Your task to perform on an android device: Open calendar and show me the first week of next month Image 0: 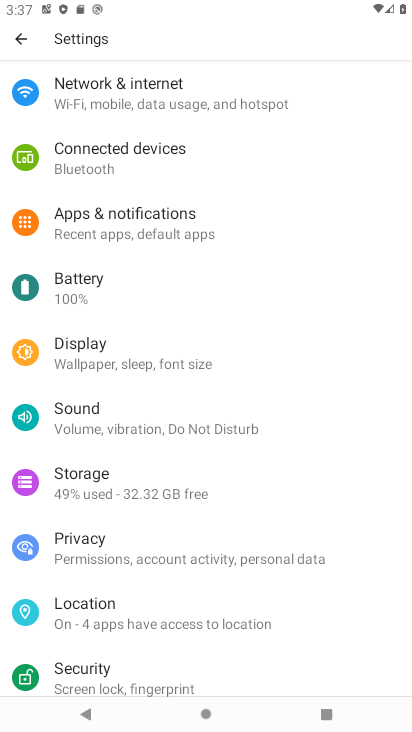
Step 0: press home button
Your task to perform on an android device: Open calendar and show me the first week of next month Image 1: 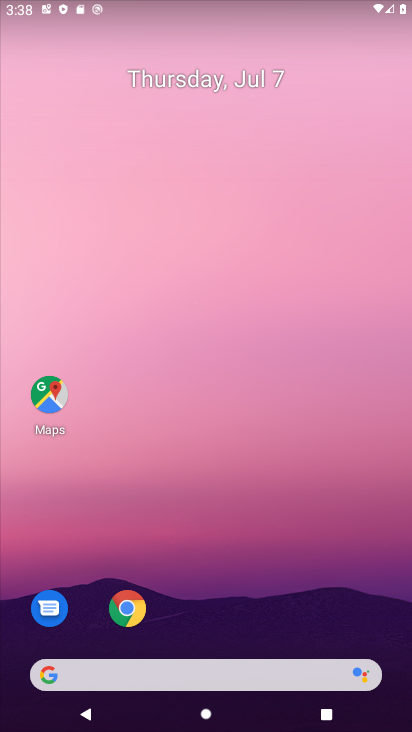
Step 1: drag from (391, 632) to (345, 172)
Your task to perform on an android device: Open calendar and show me the first week of next month Image 2: 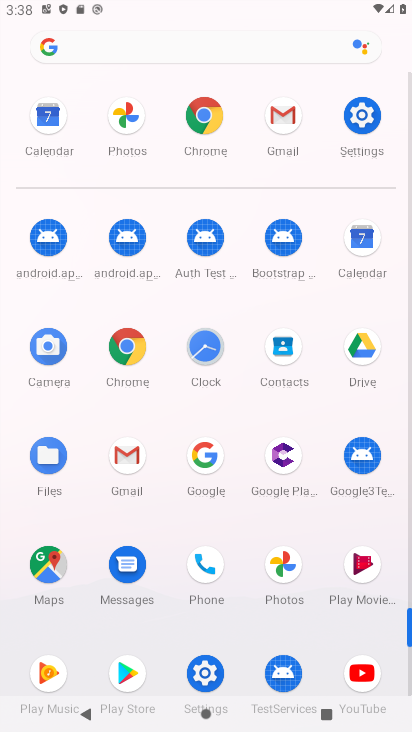
Step 2: click (363, 235)
Your task to perform on an android device: Open calendar and show me the first week of next month Image 3: 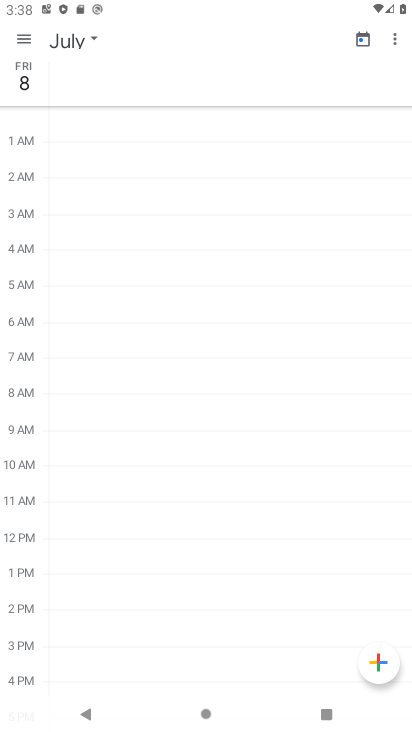
Step 3: click (24, 34)
Your task to perform on an android device: Open calendar and show me the first week of next month Image 4: 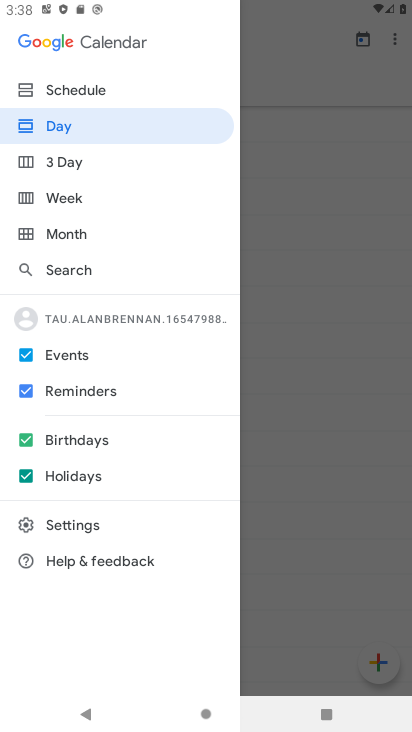
Step 4: click (65, 197)
Your task to perform on an android device: Open calendar and show me the first week of next month Image 5: 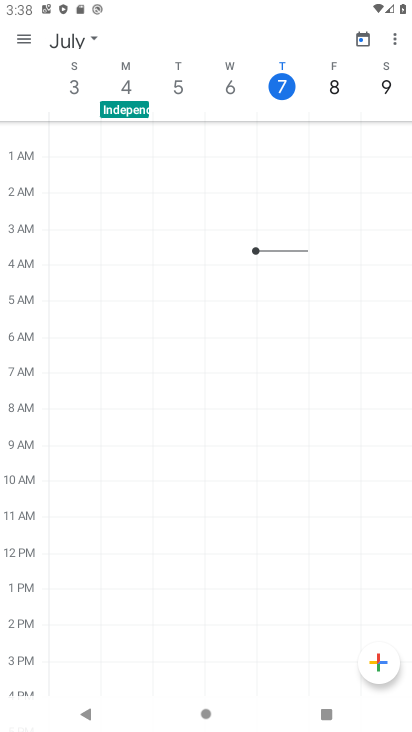
Step 5: click (93, 37)
Your task to perform on an android device: Open calendar and show me the first week of next month Image 6: 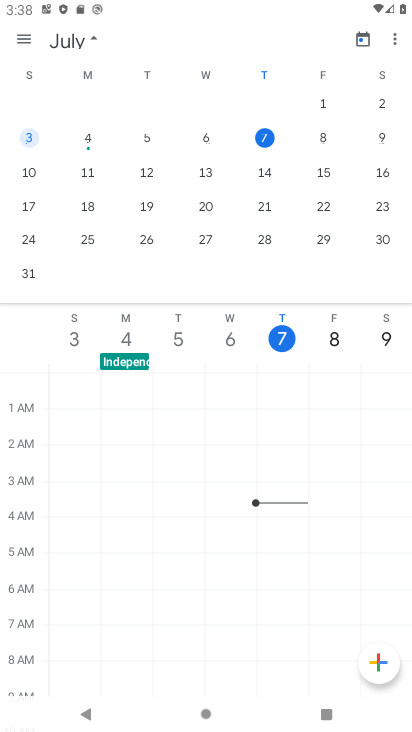
Step 6: drag from (379, 203) to (80, 200)
Your task to perform on an android device: Open calendar and show me the first week of next month Image 7: 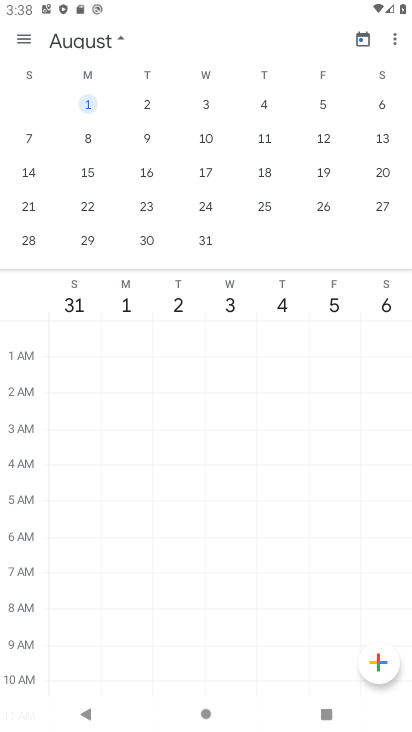
Step 7: click (30, 139)
Your task to perform on an android device: Open calendar and show me the first week of next month Image 8: 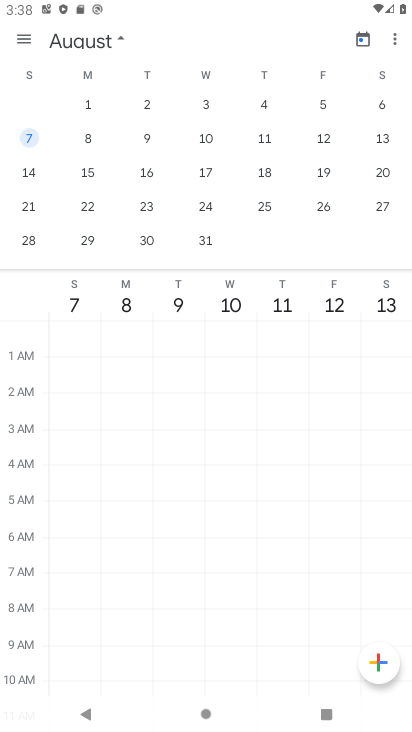
Step 8: task complete